Your task to perform on an android device: turn off location Image 0: 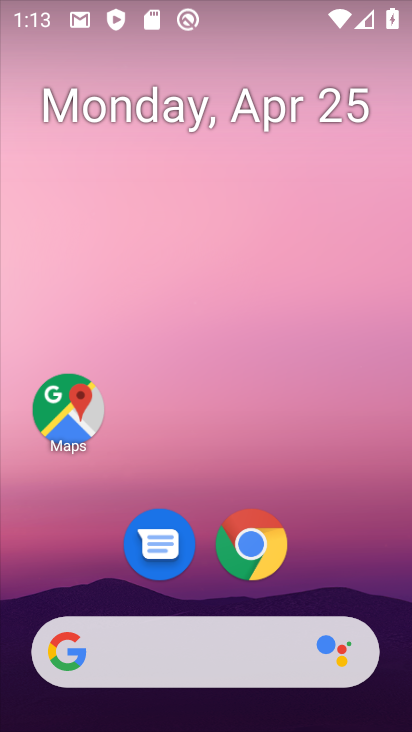
Step 0: drag from (151, 608) to (244, 123)
Your task to perform on an android device: turn off location Image 1: 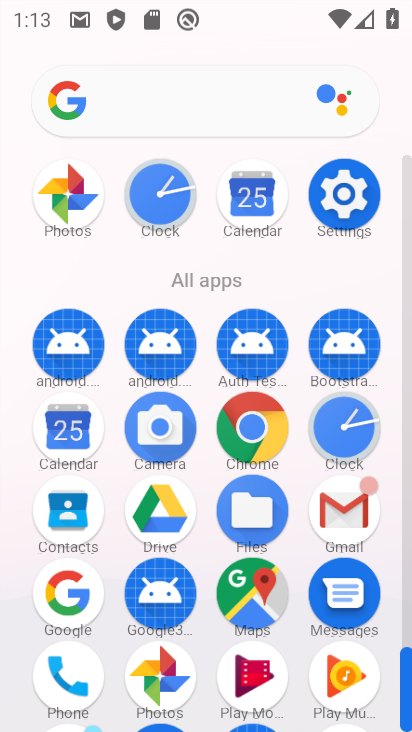
Step 1: click (350, 189)
Your task to perform on an android device: turn off location Image 2: 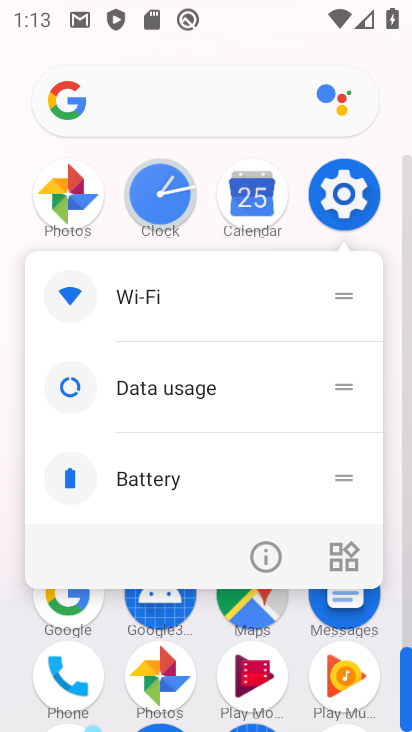
Step 2: click (344, 205)
Your task to perform on an android device: turn off location Image 3: 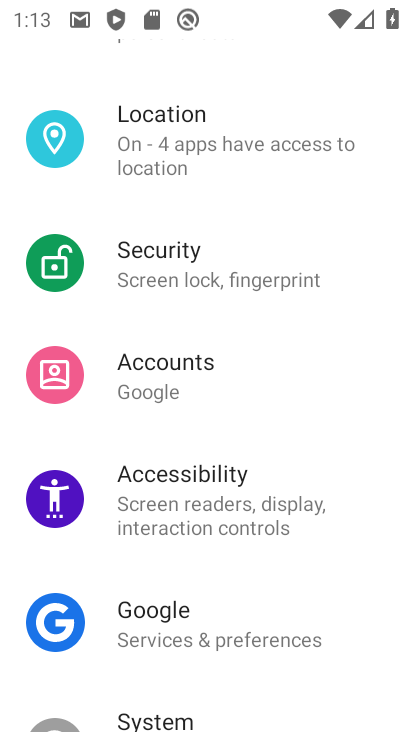
Step 3: drag from (250, 234) to (251, 581)
Your task to perform on an android device: turn off location Image 4: 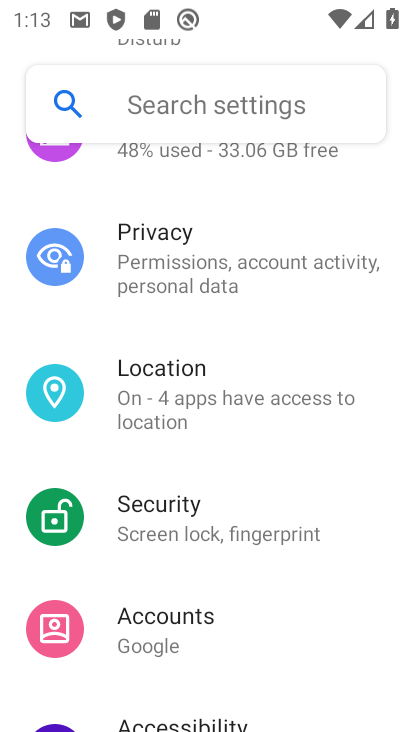
Step 4: drag from (227, 276) to (198, 646)
Your task to perform on an android device: turn off location Image 5: 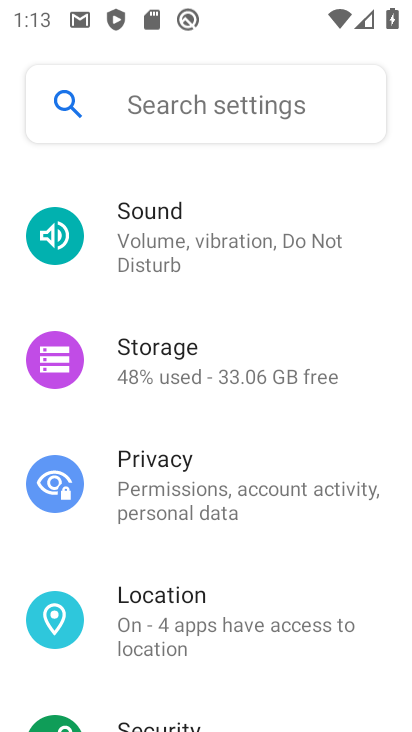
Step 5: click (191, 629)
Your task to perform on an android device: turn off location Image 6: 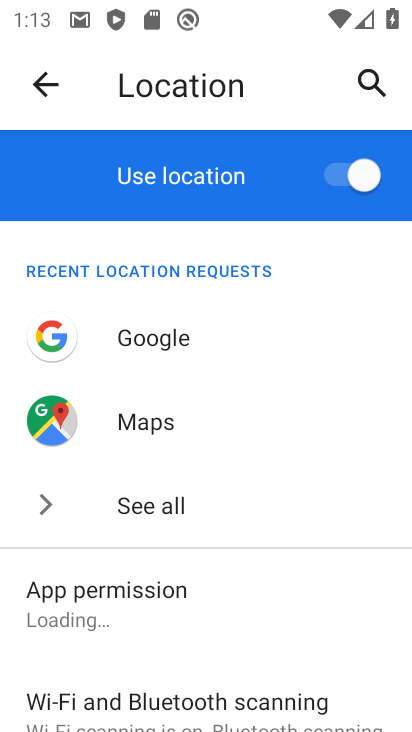
Step 6: click (339, 172)
Your task to perform on an android device: turn off location Image 7: 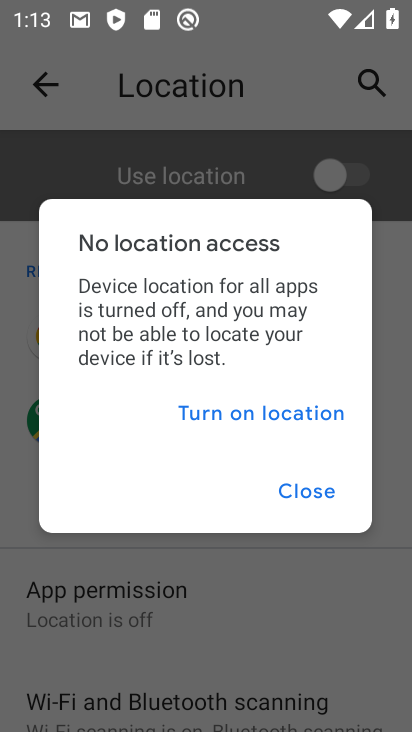
Step 7: task complete